Your task to perform on an android device: turn off notifications in google photos Image 0: 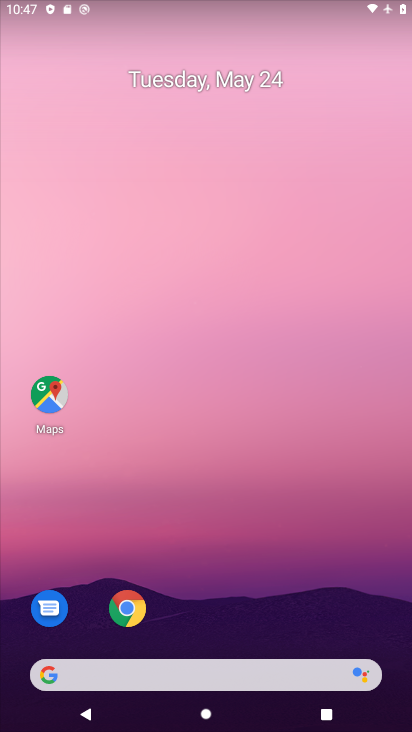
Step 0: drag from (386, 634) to (319, 150)
Your task to perform on an android device: turn off notifications in google photos Image 1: 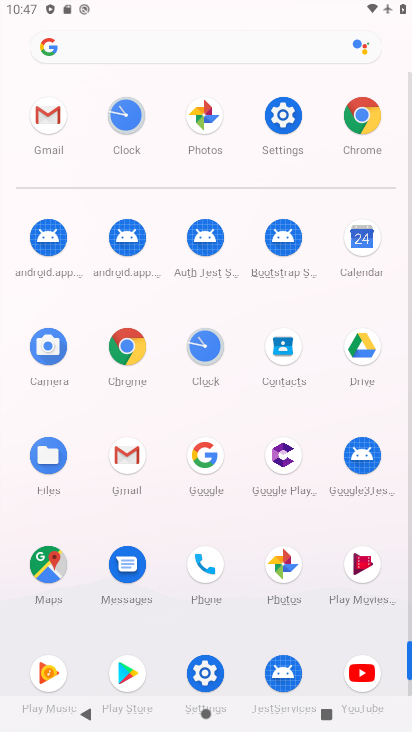
Step 1: click (281, 564)
Your task to perform on an android device: turn off notifications in google photos Image 2: 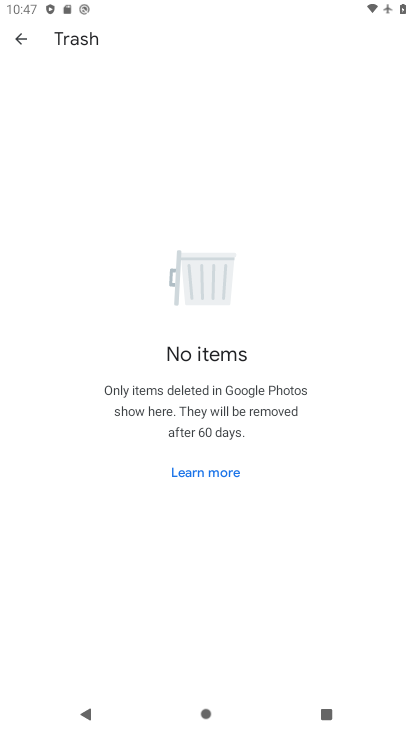
Step 2: press back button
Your task to perform on an android device: turn off notifications in google photos Image 3: 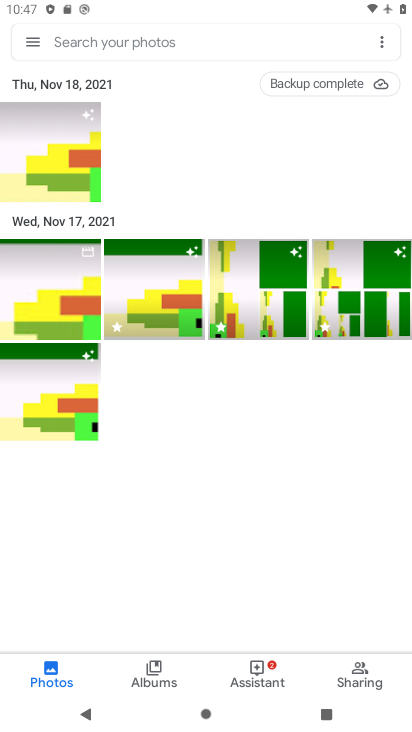
Step 3: click (34, 38)
Your task to perform on an android device: turn off notifications in google photos Image 4: 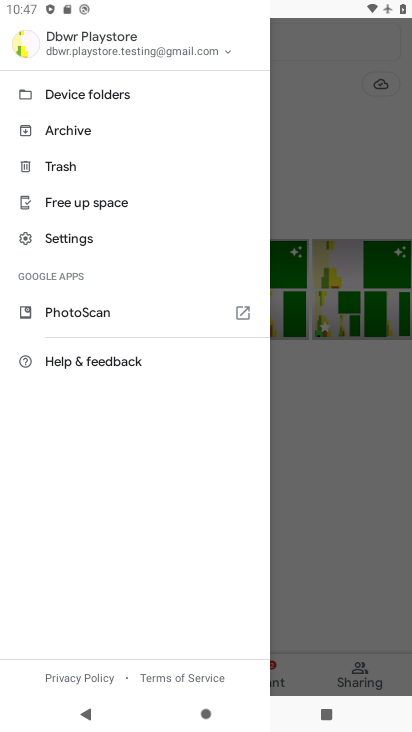
Step 4: click (72, 239)
Your task to perform on an android device: turn off notifications in google photos Image 5: 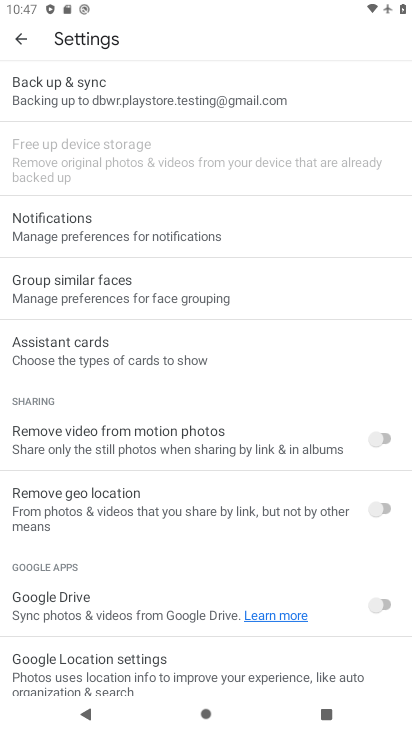
Step 5: click (80, 231)
Your task to perform on an android device: turn off notifications in google photos Image 6: 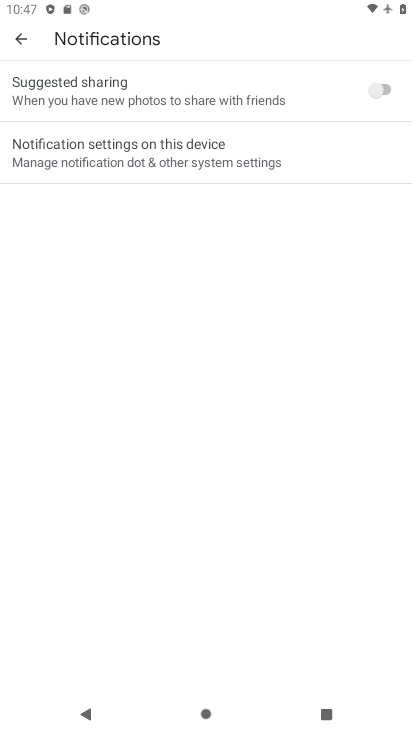
Step 6: click (181, 149)
Your task to perform on an android device: turn off notifications in google photos Image 7: 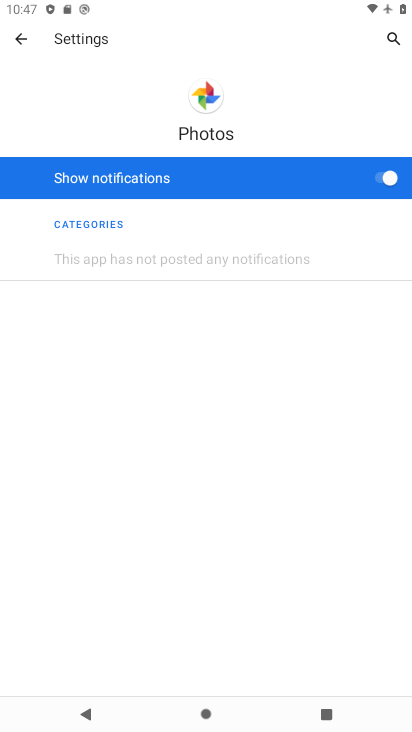
Step 7: click (377, 176)
Your task to perform on an android device: turn off notifications in google photos Image 8: 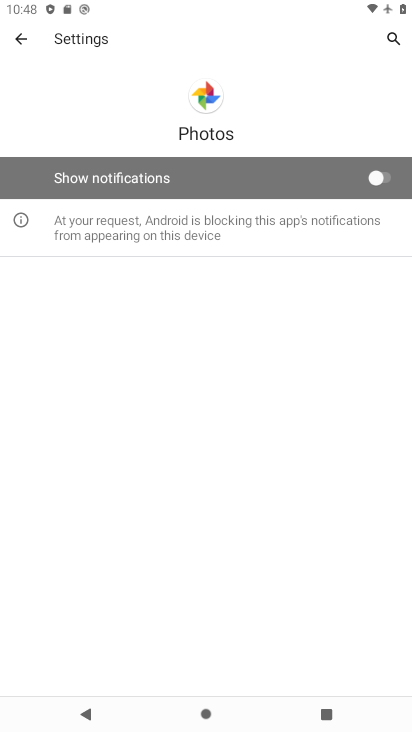
Step 8: task complete